Your task to perform on an android device: Open calendar and show me the first week of next month Image 0: 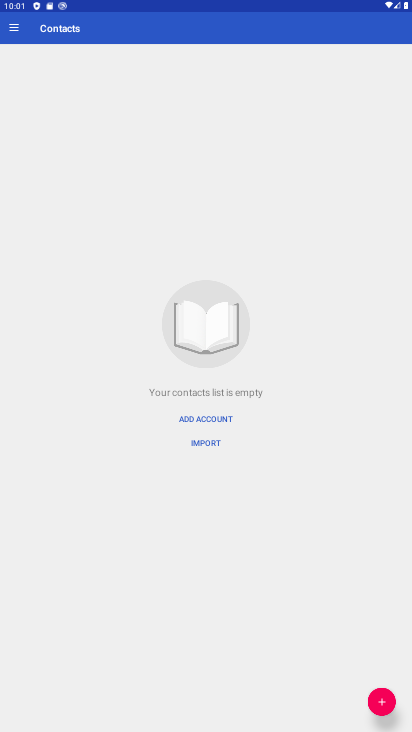
Step 0: press home button
Your task to perform on an android device: Open calendar and show me the first week of next month Image 1: 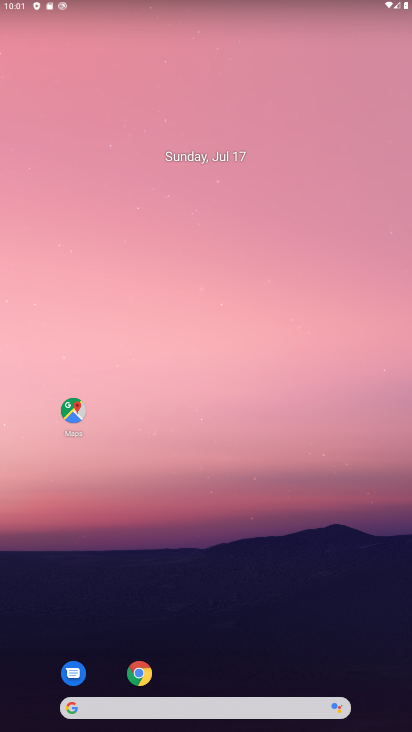
Step 1: drag from (375, 674) to (336, 112)
Your task to perform on an android device: Open calendar and show me the first week of next month Image 2: 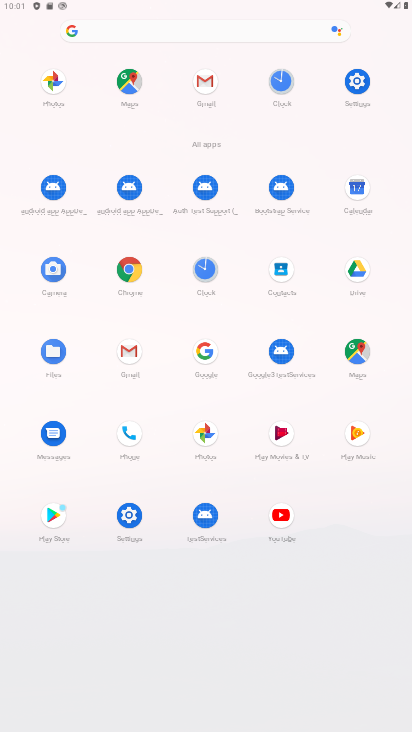
Step 2: click (357, 188)
Your task to perform on an android device: Open calendar and show me the first week of next month Image 3: 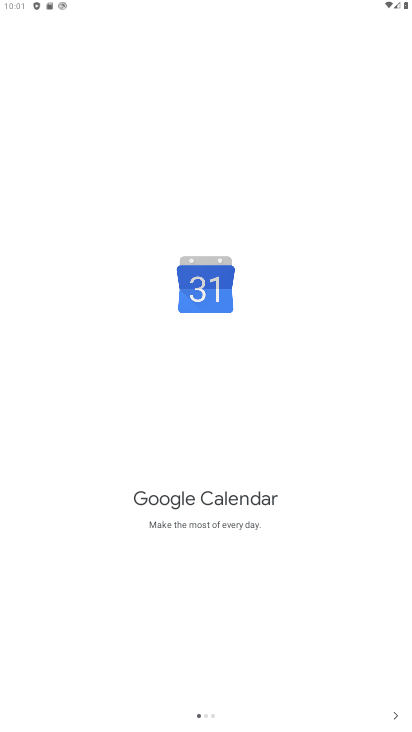
Step 3: click (395, 715)
Your task to perform on an android device: Open calendar and show me the first week of next month Image 4: 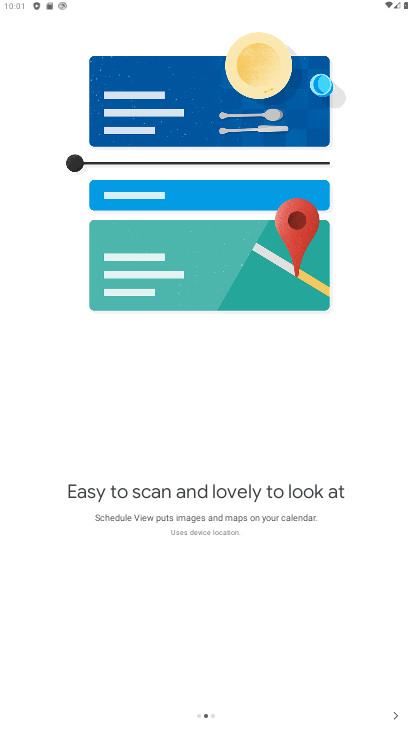
Step 4: click (395, 715)
Your task to perform on an android device: Open calendar and show me the first week of next month Image 5: 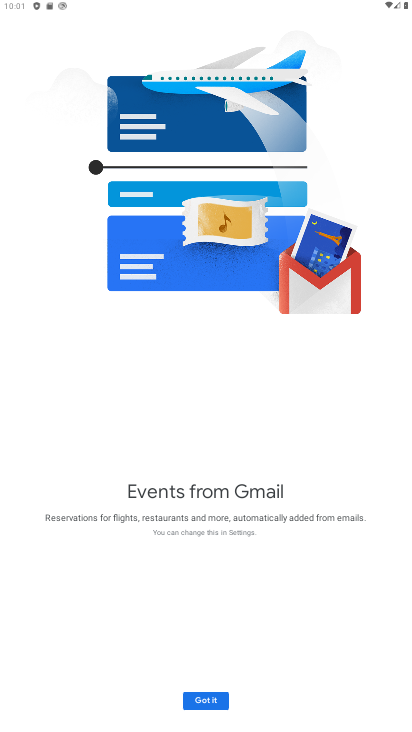
Step 5: click (199, 700)
Your task to perform on an android device: Open calendar and show me the first week of next month Image 6: 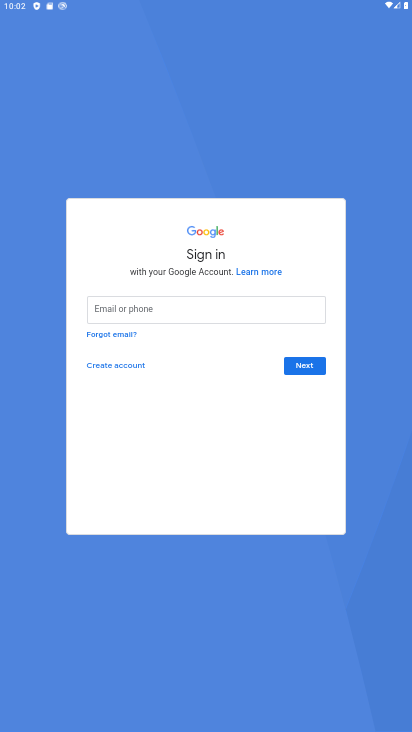
Step 6: press back button
Your task to perform on an android device: Open calendar and show me the first week of next month Image 7: 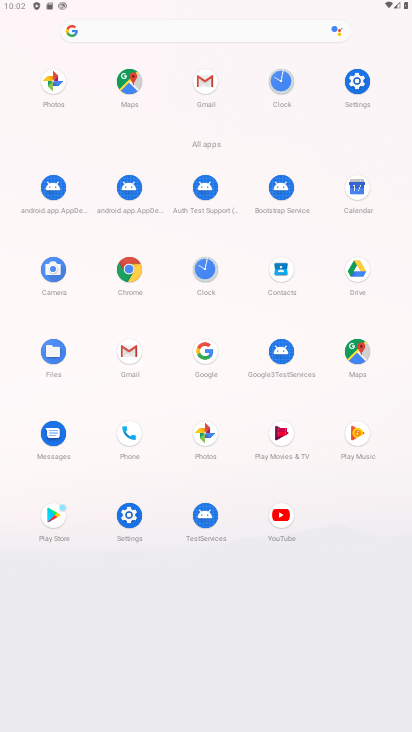
Step 7: click (353, 185)
Your task to perform on an android device: Open calendar and show me the first week of next month Image 8: 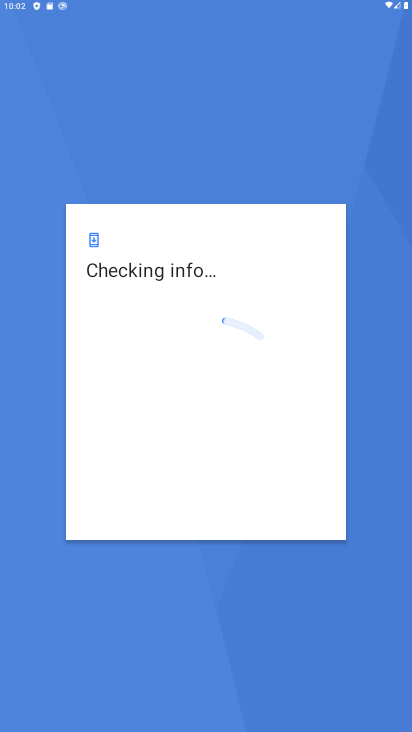
Step 8: task complete